Your task to perform on an android device: Go to calendar. Show me events next week Image 0: 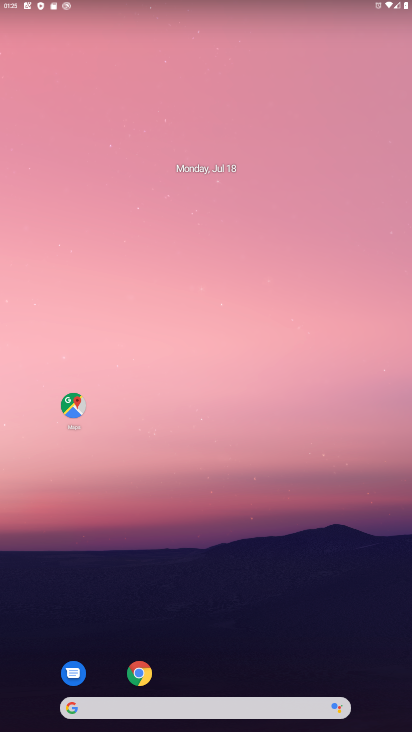
Step 0: drag from (241, 685) to (206, 198)
Your task to perform on an android device: Go to calendar. Show me events next week Image 1: 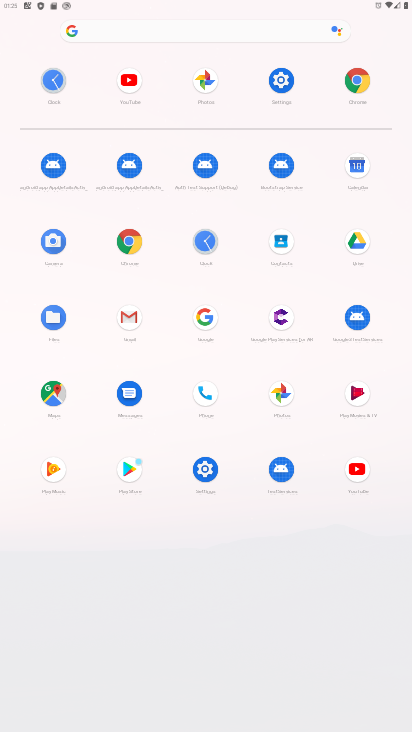
Step 1: click (357, 169)
Your task to perform on an android device: Go to calendar. Show me events next week Image 2: 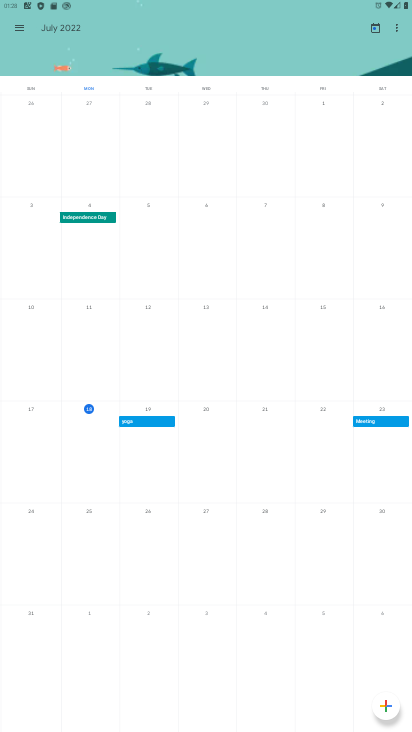
Step 2: task complete